Your task to perform on an android device: open app "Adobe Acrobat Reader: Edit PDF" (install if not already installed), go to login, and select forgot password Image 0: 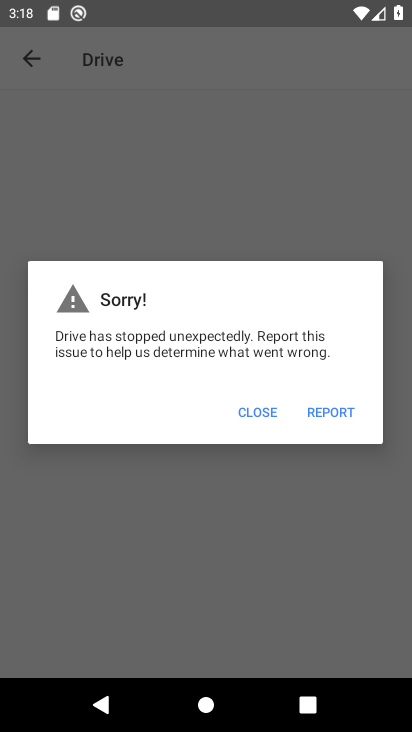
Step 0: press home button
Your task to perform on an android device: open app "Adobe Acrobat Reader: Edit PDF" (install if not already installed), go to login, and select forgot password Image 1: 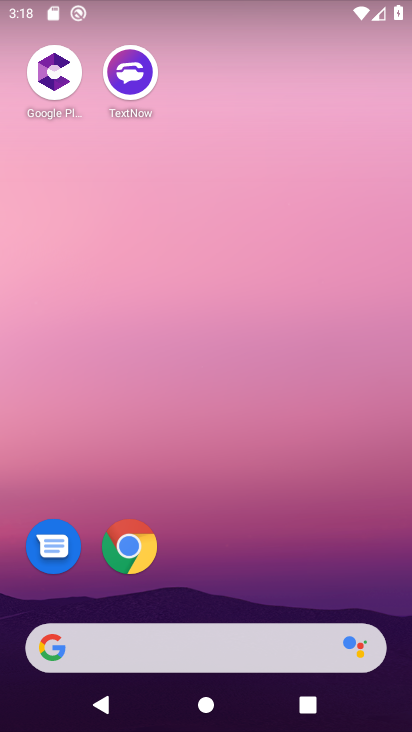
Step 1: drag from (385, 604) to (353, 65)
Your task to perform on an android device: open app "Adobe Acrobat Reader: Edit PDF" (install if not already installed), go to login, and select forgot password Image 2: 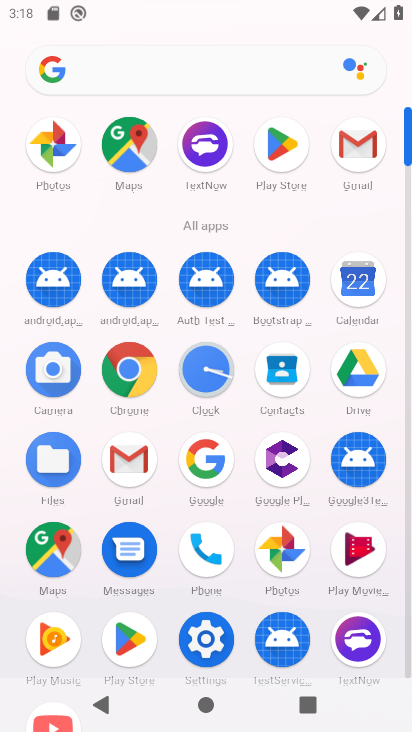
Step 2: click (130, 637)
Your task to perform on an android device: open app "Adobe Acrobat Reader: Edit PDF" (install if not already installed), go to login, and select forgot password Image 3: 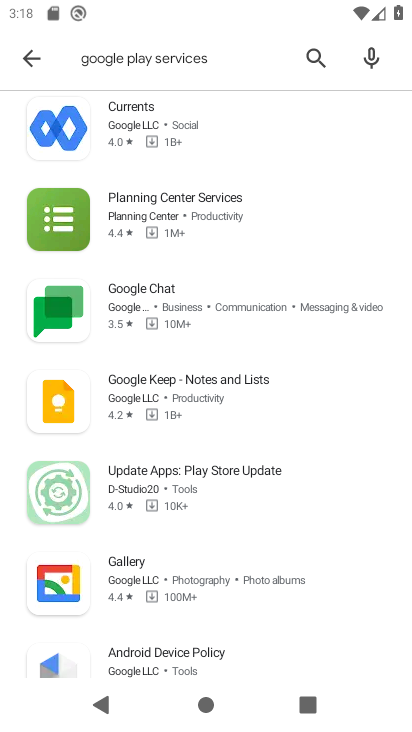
Step 3: click (311, 52)
Your task to perform on an android device: open app "Adobe Acrobat Reader: Edit PDF" (install if not already installed), go to login, and select forgot password Image 4: 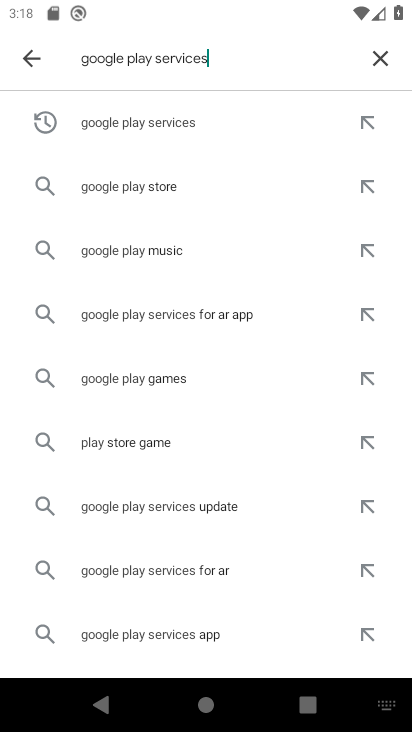
Step 4: click (377, 57)
Your task to perform on an android device: open app "Adobe Acrobat Reader: Edit PDF" (install if not already installed), go to login, and select forgot password Image 5: 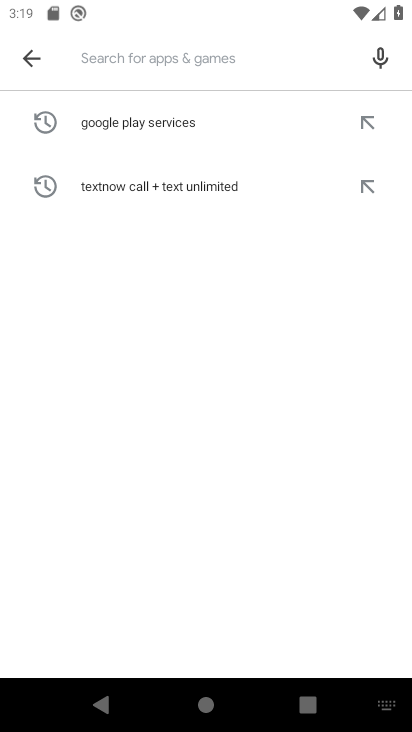
Step 5: type "Adobe Acrobat Reader: Edit PDF"
Your task to perform on an android device: open app "Adobe Acrobat Reader: Edit PDF" (install if not already installed), go to login, and select forgot password Image 6: 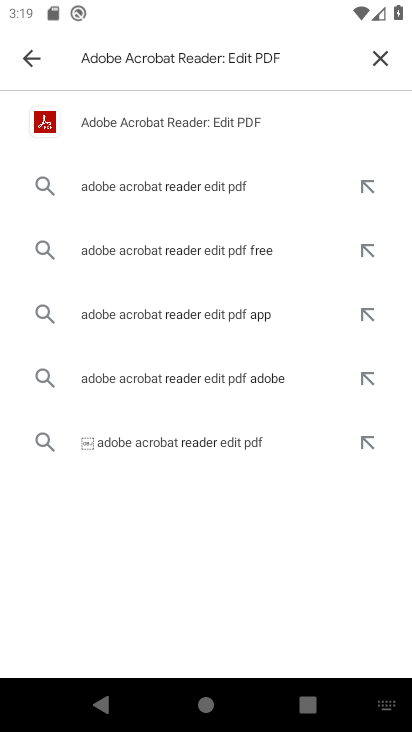
Step 6: click (136, 124)
Your task to perform on an android device: open app "Adobe Acrobat Reader: Edit PDF" (install if not already installed), go to login, and select forgot password Image 7: 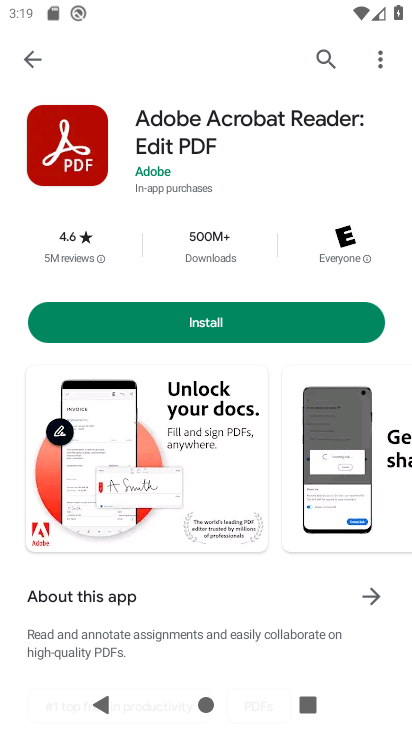
Step 7: click (204, 321)
Your task to perform on an android device: open app "Adobe Acrobat Reader: Edit PDF" (install if not already installed), go to login, and select forgot password Image 8: 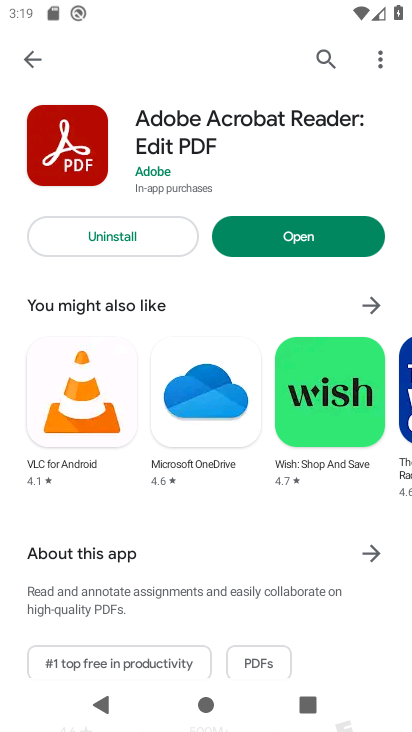
Step 8: click (290, 235)
Your task to perform on an android device: open app "Adobe Acrobat Reader: Edit PDF" (install if not already installed), go to login, and select forgot password Image 9: 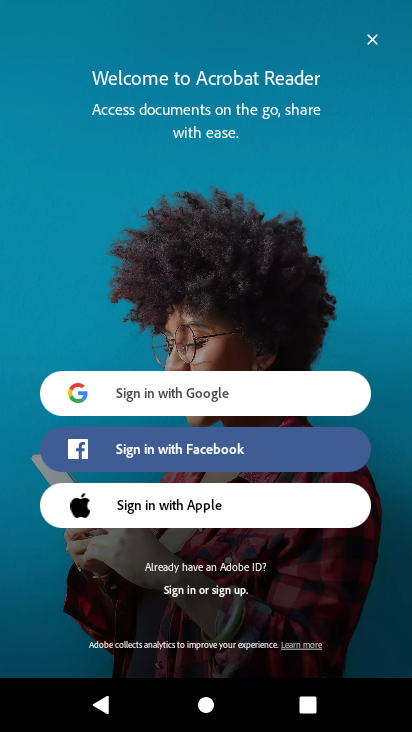
Step 9: click (189, 590)
Your task to perform on an android device: open app "Adobe Acrobat Reader: Edit PDF" (install if not already installed), go to login, and select forgot password Image 10: 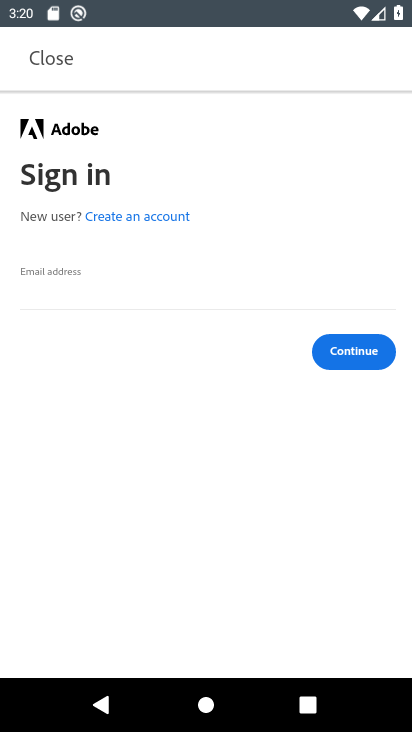
Step 10: click (49, 61)
Your task to perform on an android device: open app "Adobe Acrobat Reader: Edit PDF" (install if not already installed), go to login, and select forgot password Image 11: 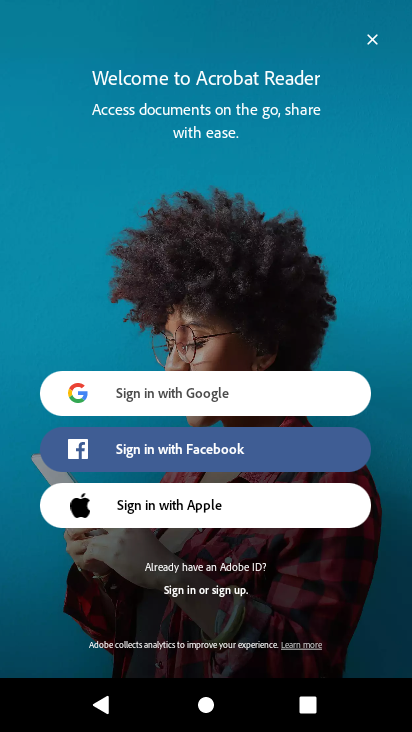
Step 11: click (181, 387)
Your task to perform on an android device: open app "Adobe Acrobat Reader: Edit PDF" (install if not already installed), go to login, and select forgot password Image 12: 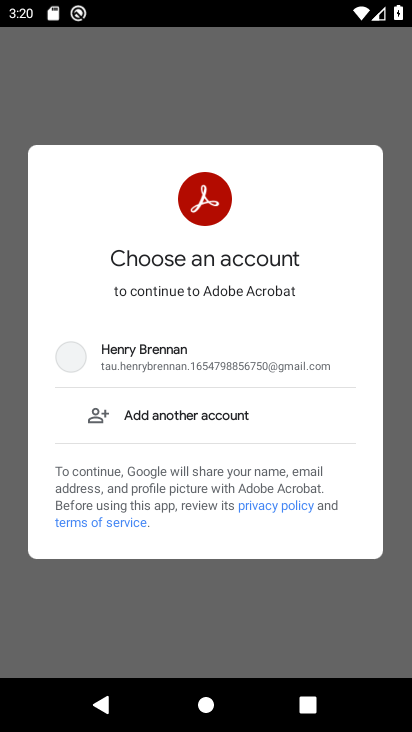
Step 12: task complete